Your task to perform on an android device: Do I have any events tomorrow? Image 0: 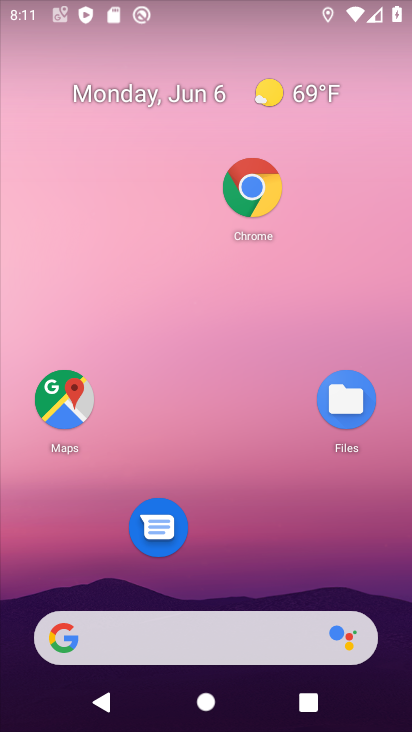
Step 0: drag from (196, 556) to (155, 9)
Your task to perform on an android device: Do I have any events tomorrow? Image 1: 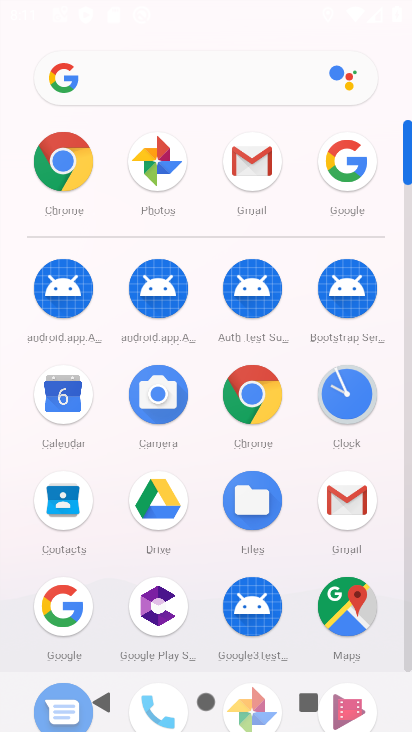
Step 1: click (57, 400)
Your task to perform on an android device: Do I have any events tomorrow? Image 2: 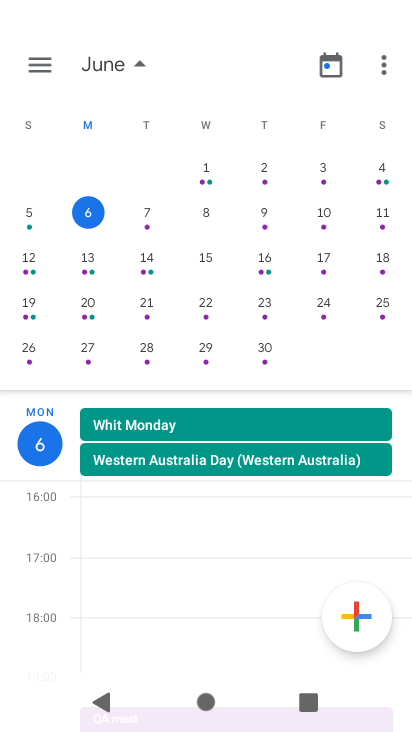
Step 2: click (152, 220)
Your task to perform on an android device: Do I have any events tomorrow? Image 3: 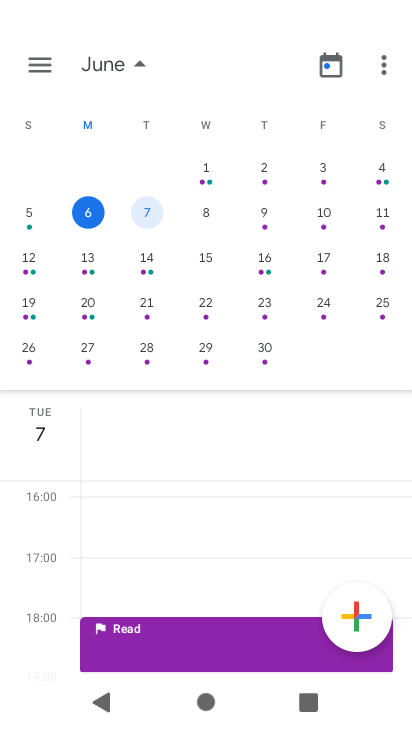
Step 3: task complete